Your task to perform on an android device: Go to calendar. Show me events next week Image 0: 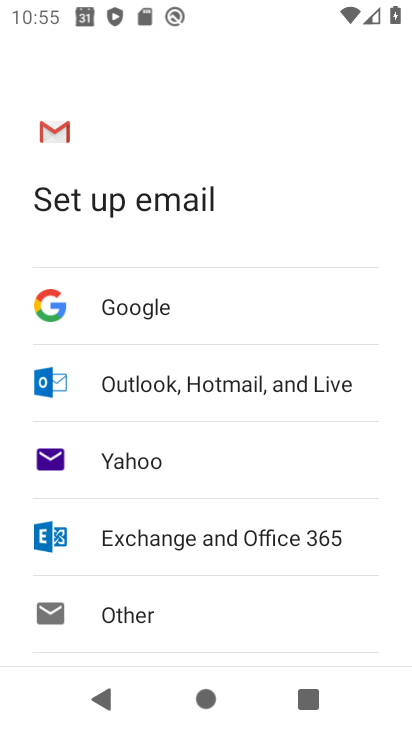
Step 0: press home button
Your task to perform on an android device: Go to calendar. Show me events next week Image 1: 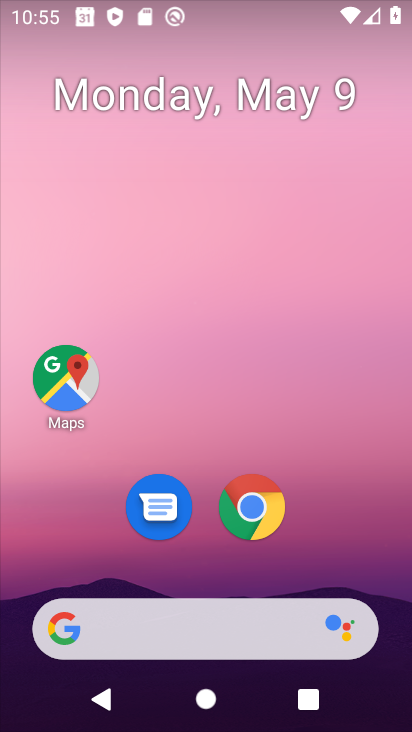
Step 1: click (228, 106)
Your task to perform on an android device: Go to calendar. Show me events next week Image 2: 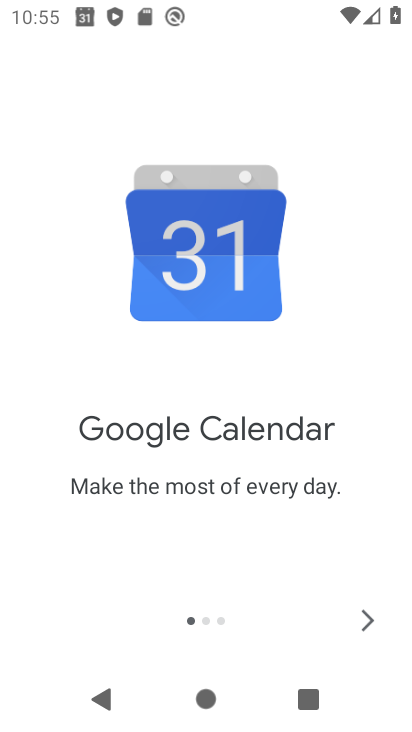
Step 2: click (370, 612)
Your task to perform on an android device: Go to calendar. Show me events next week Image 3: 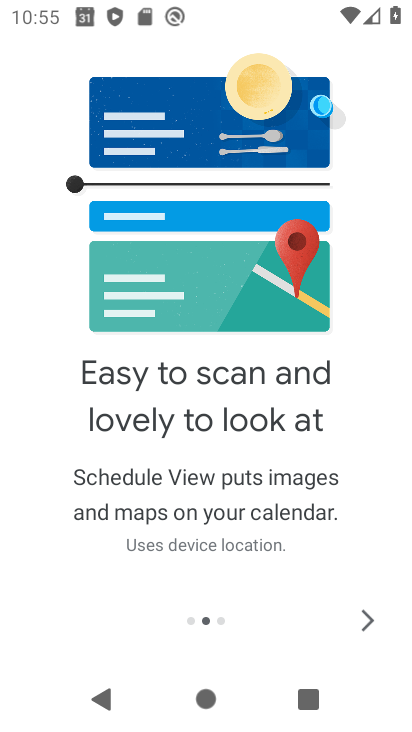
Step 3: click (370, 612)
Your task to perform on an android device: Go to calendar. Show me events next week Image 4: 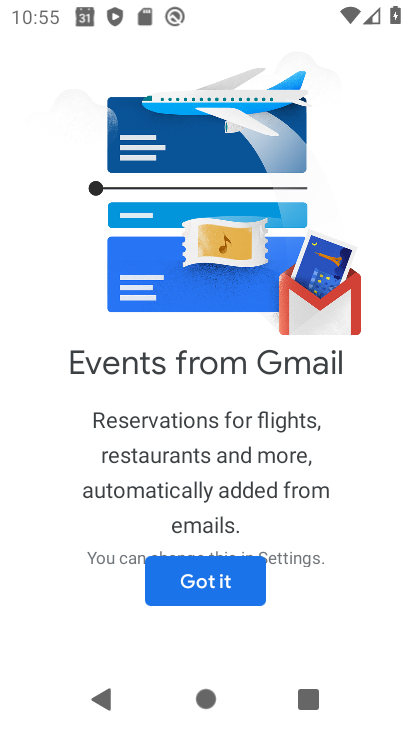
Step 4: click (204, 579)
Your task to perform on an android device: Go to calendar. Show me events next week Image 5: 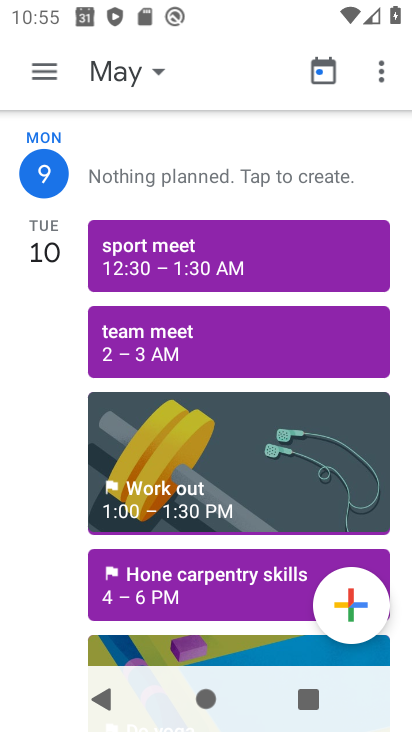
Step 5: click (30, 74)
Your task to perform on an android device: Go to calendar. Show me events next week Image 6: 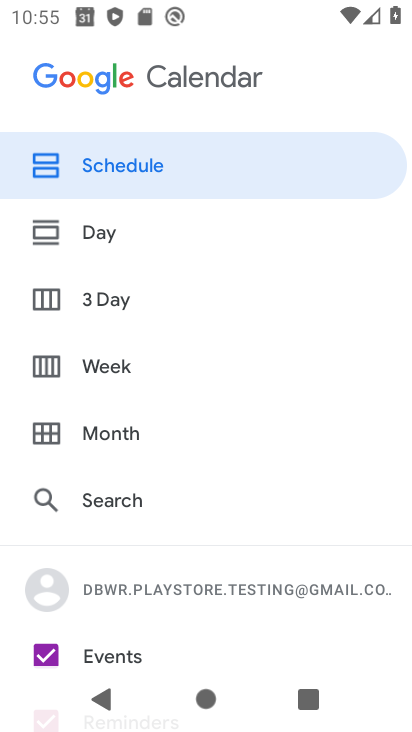
Step 6: drag from (147, 583) to (150, 224)
Your task to perform on an android device: Go to calendar. Show me events next week Image 7: 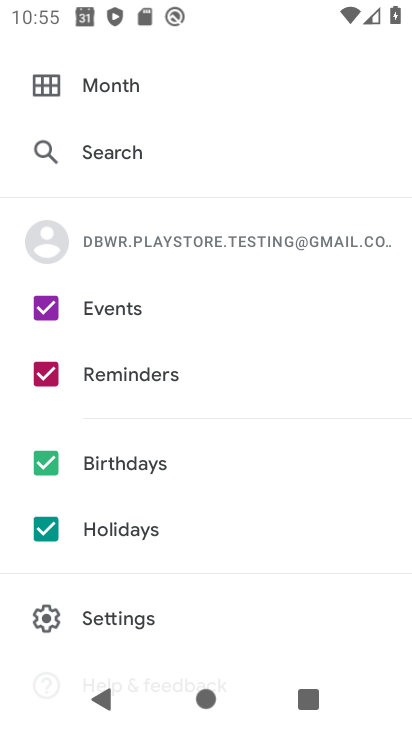
Step 7: click (48, 525)
Your task to perform on an android device: Go to calendar. Show me events next week Image 8: 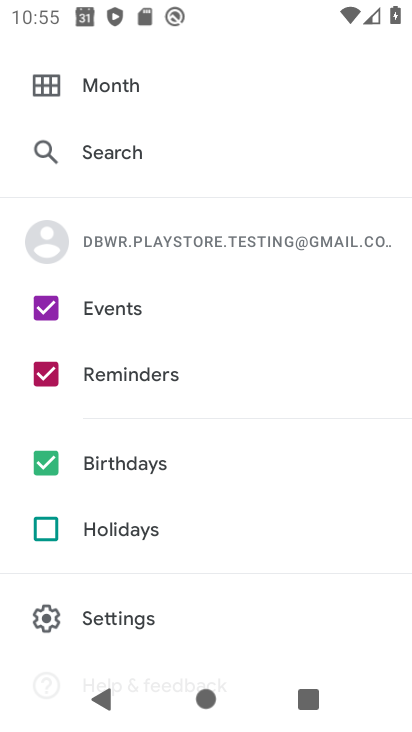
Step 8: click (57, 457)
Your task to perform on an android device: Go to calendar. Show me events next week Image 9: 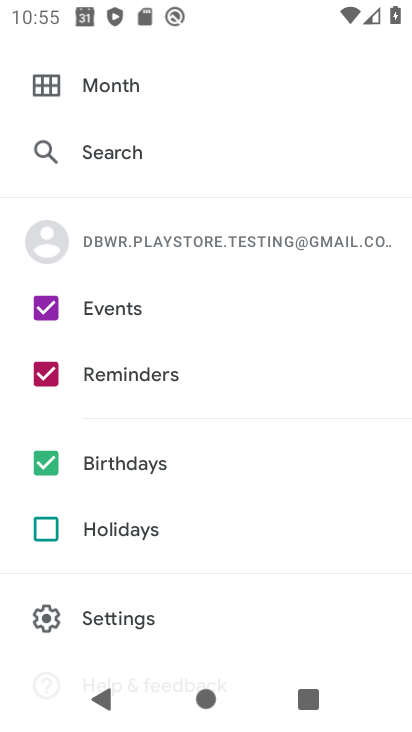
Step 9: click (50, 379)
Your task to perform on an android device: Go to calendar. Show me events next week Image 10: 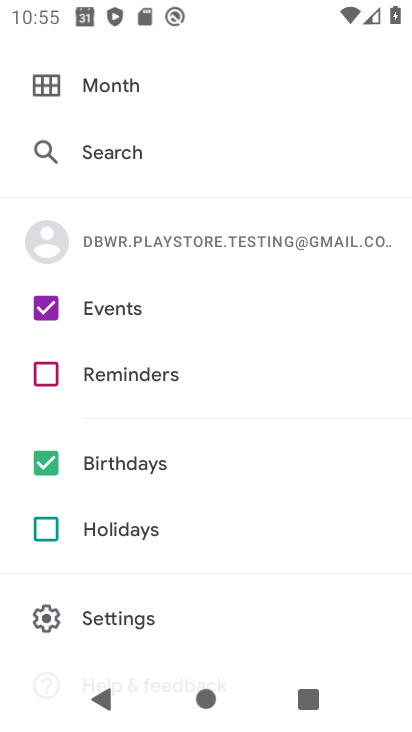
Step 10: click (58, 458)
Your task to perform on an android device: Go to calendar. Show me events next week Image 11: 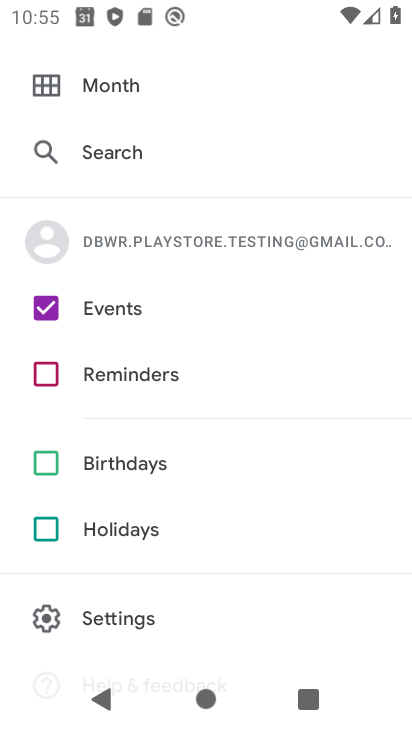
Step 11: drag from (317, 176) to (294, 594)
Your task to perform on an android device: Go to calendar. Show me events next week Image 12: 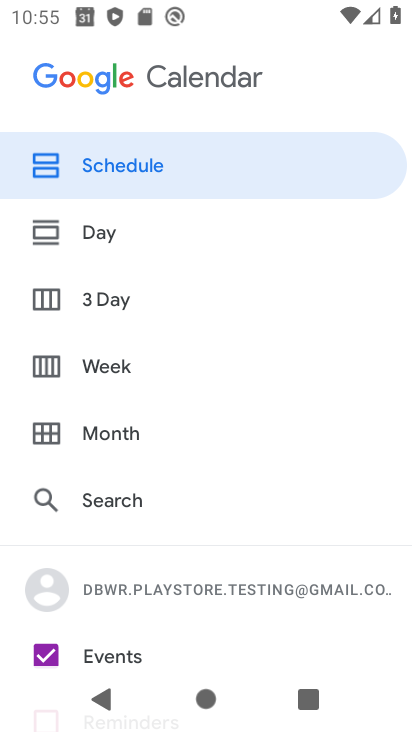
Step 12: click (108, 362)
Your task to perform on an android device: Go to calendar. Show me events next week Image 13: 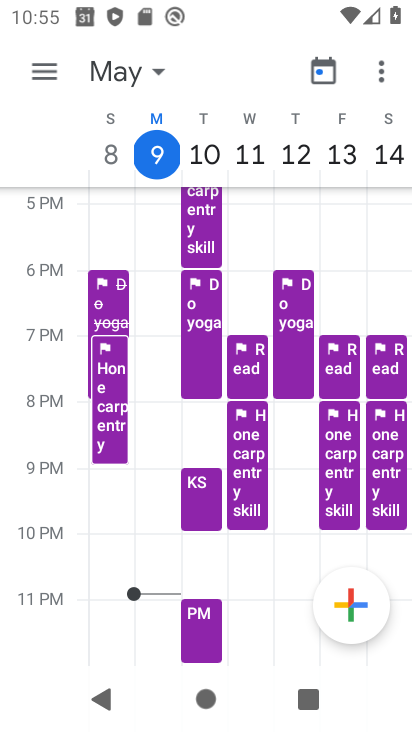
Step 13: task complete